Your task to perform on an android device: Search for "usb-c to usb-b" on amazon.com, select the first entry, and add it to the cart. Image 0: 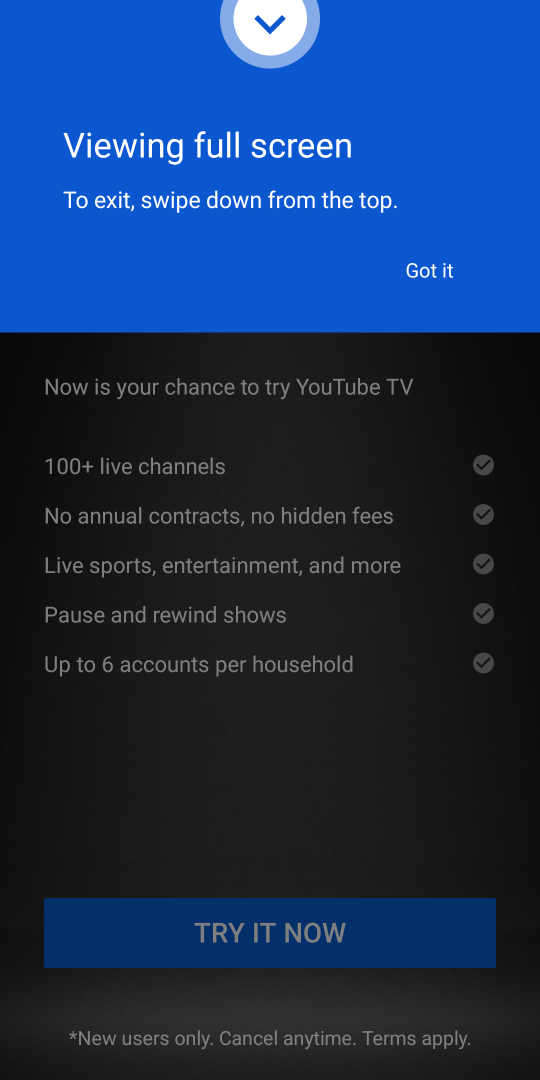
Step 0: click (442, 279)
Your task to perform on an android device: Search for "usb-c to usb-b" on amazon.com, select the first entry, and add it to the cart. Image 1: 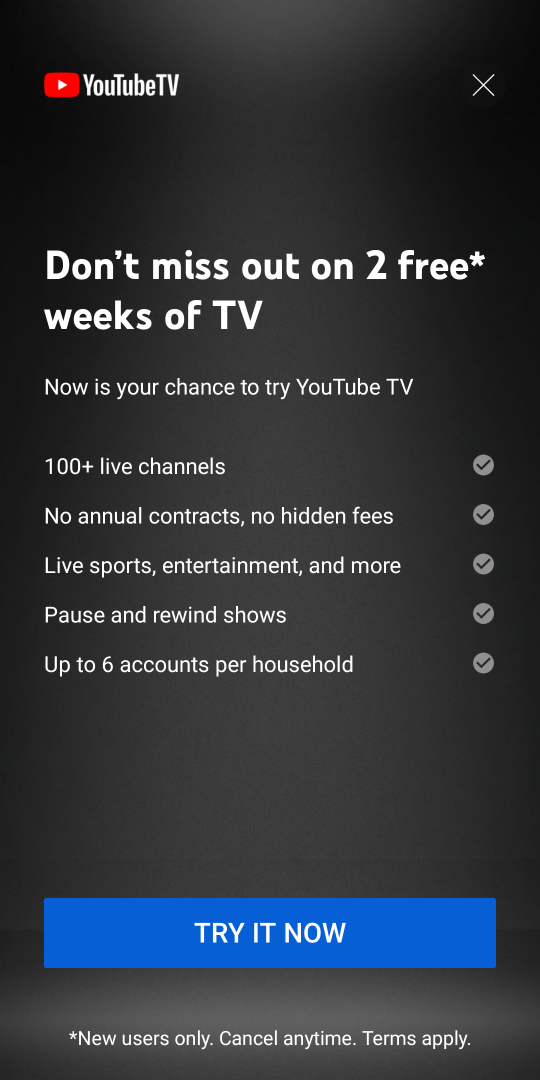
Step 1: click (476, 97)
Your task to perform on an android device: Search for "usb-c to usb-b" on amazon.com, select the first entry, and add it to the cart. Image 2: 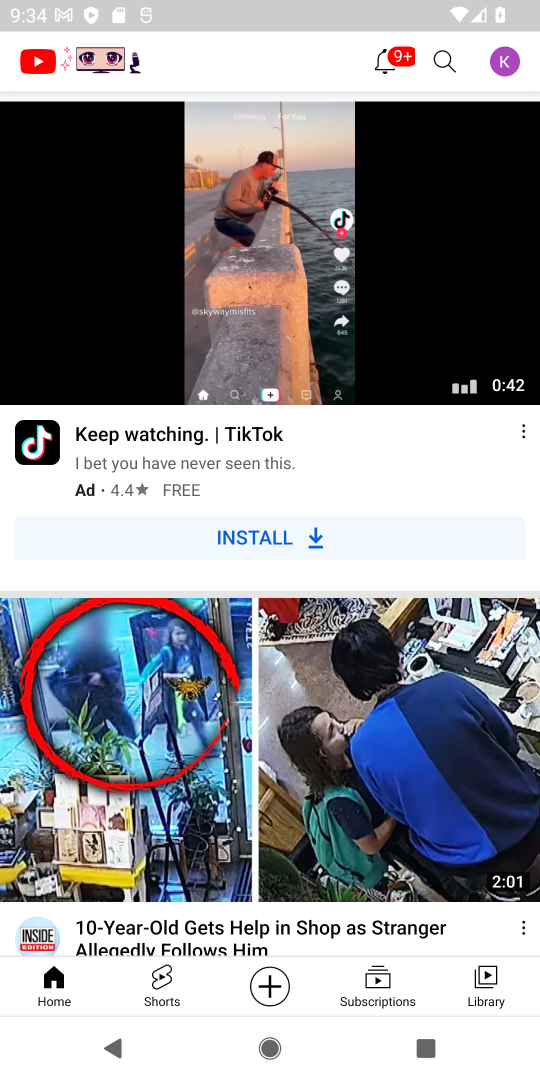
Step 2: press home button
Your task to perform on an android device: Search for "usb-c to usb-b" on amazon.com, select the first entry, and add it to the cart. Image 3: 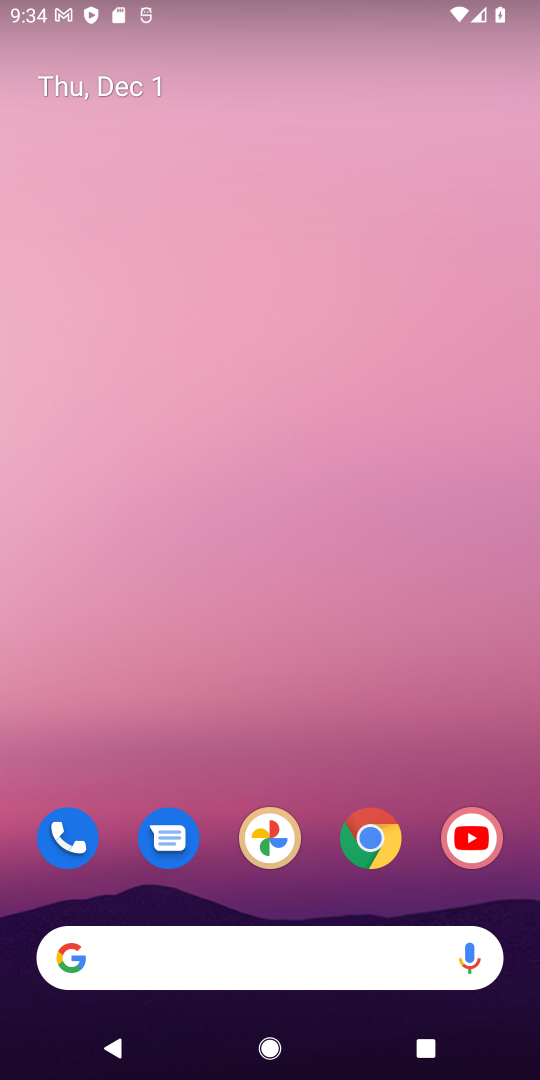
Step 3: drag from (308, 921) to (309, 386)
Your task to perform on an android device: Search for "usb-c to usb-b" on amazon.com, select the first entry, and add it to the cart. Image 4: 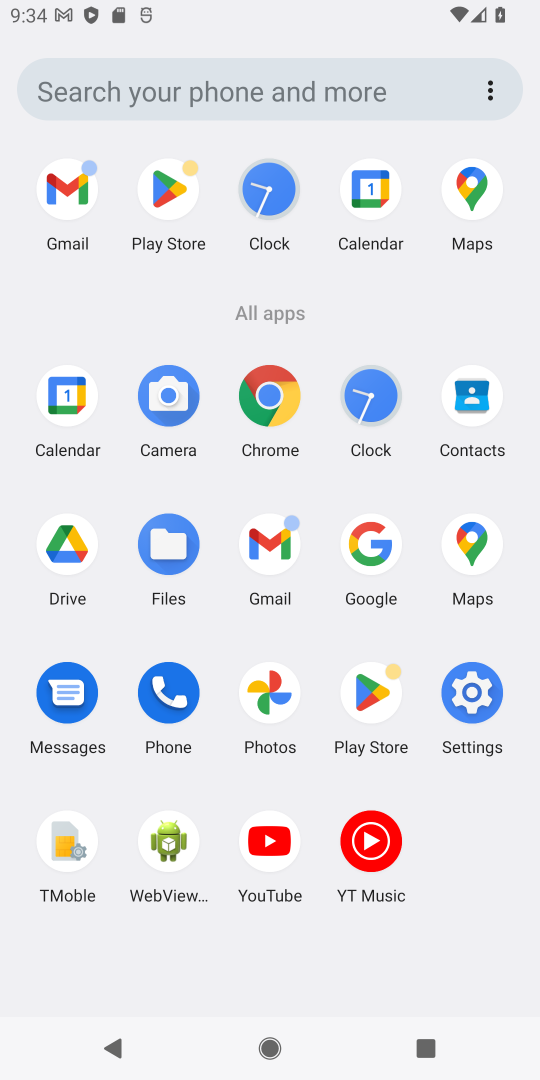
Step 4: click (373, 541)
Your task to perform on an android device: Search for "usb-c to usb-b" on amazon.com, select the first entry, and add it to the cart. Image 5: 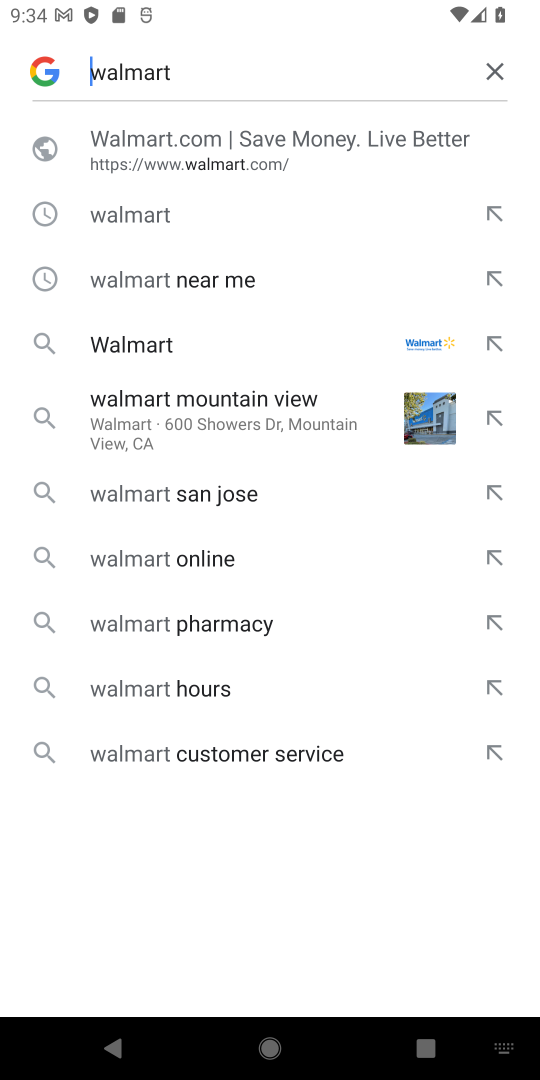
Step 5: click (490, 63)
Your task to perform on an android device: Search for "usb-c to usb-b" on amazon.com, select the first entry, and add it to the cart. Image 6: 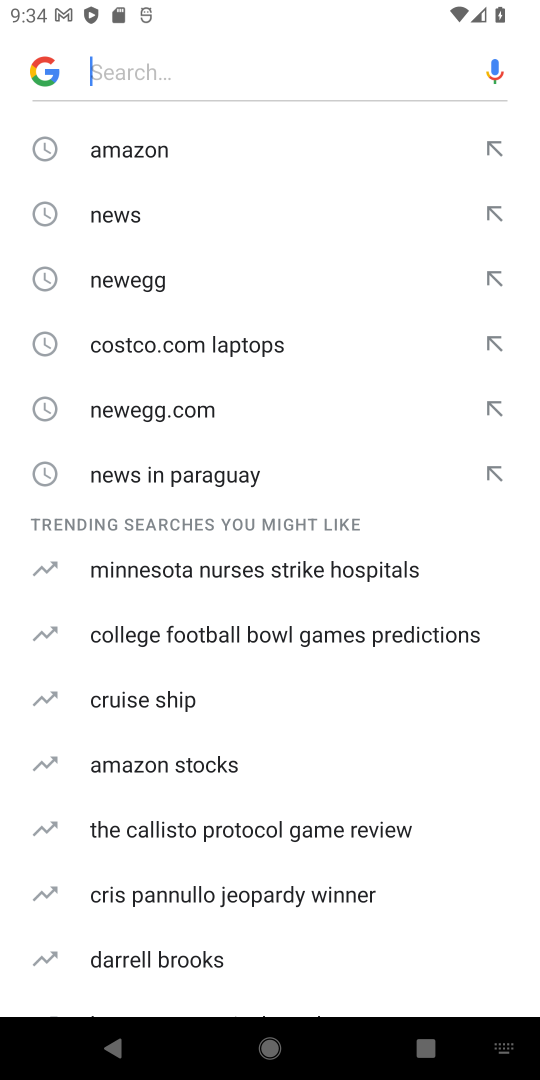
Step 6: click (128, 142)
Your task to perform on an android device: Search for "usb-c to usb-b" on amazon.com, select the first entry, and add it to the cart. Image 7: 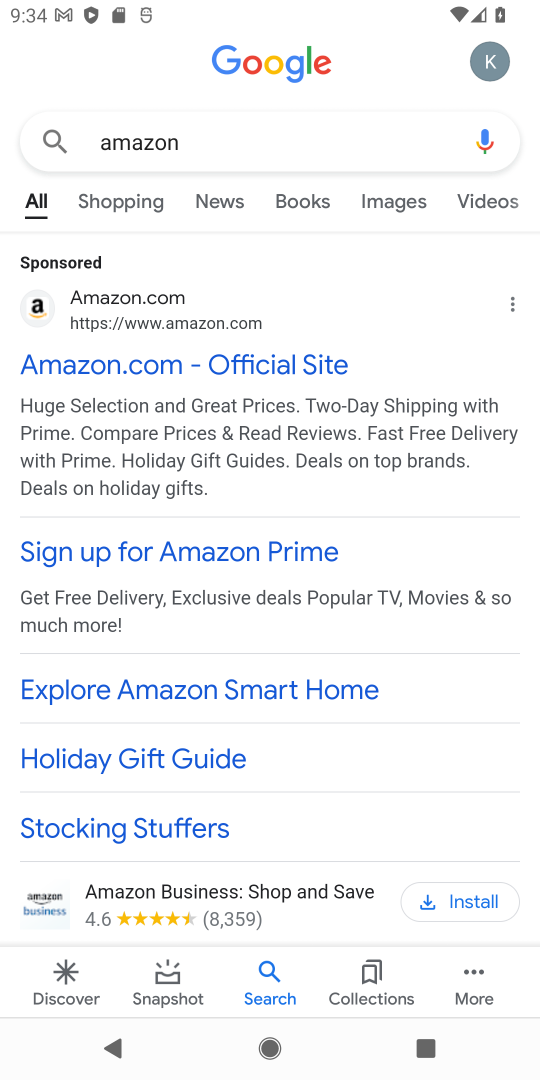
Step 7: click (75, 362)
Your task to perform on an android device: Search for "usb-c to usb-b" on amazon.com, select the first entry, and add it to the cart. Image 8: 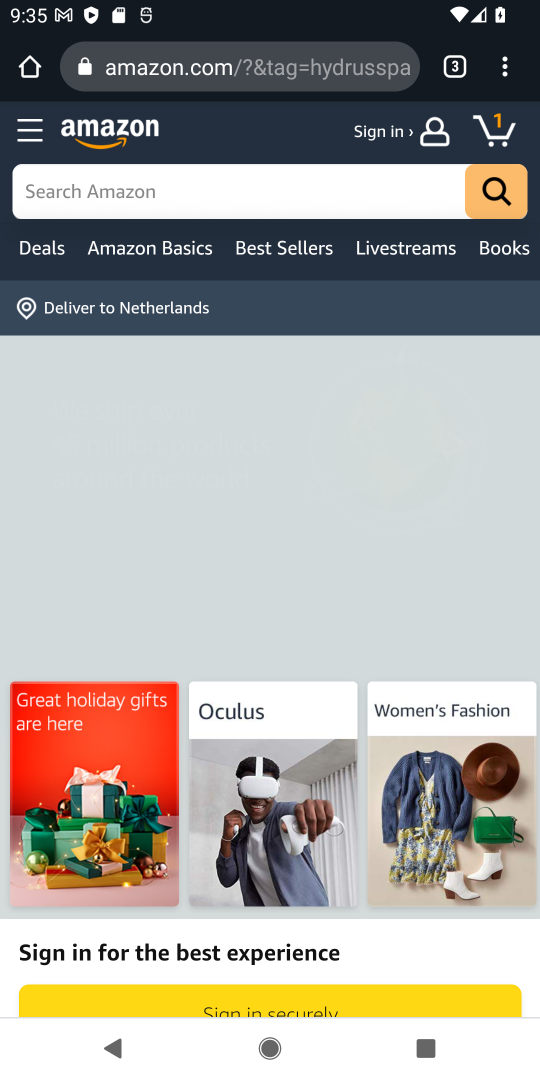
Step 8: click (144, 190)
Your task to perform on an android device: Search for "usb-c to usb-b" on amazon.com, select the first entry, and add it to the cart. Image 9: 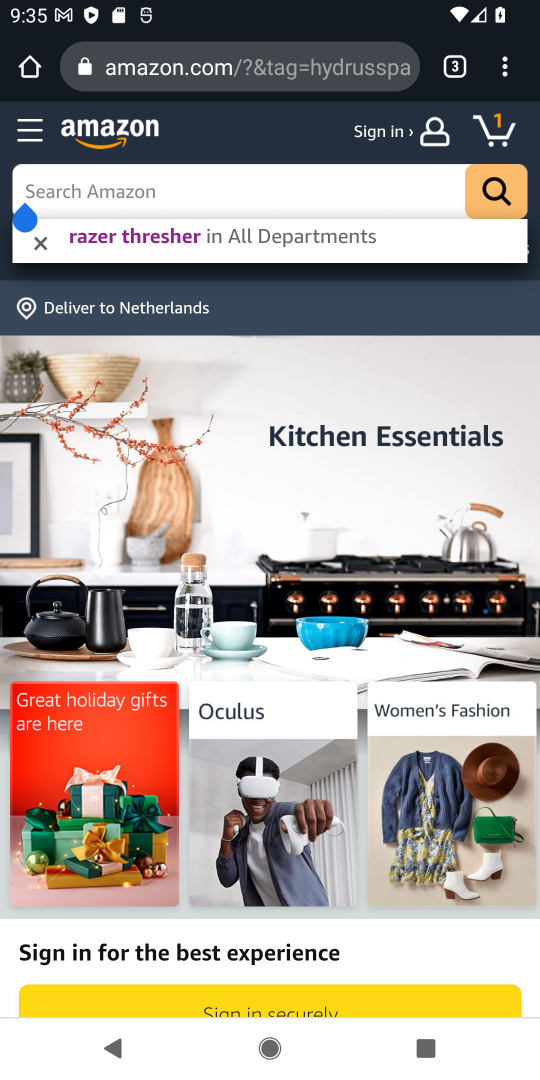
Step 9: type "usb-c to usb-b"
Your task to perform on an android device: Search for "usb-c to usb-b" on amazon.com, select the first entry, and add it to the cart. Image 10: 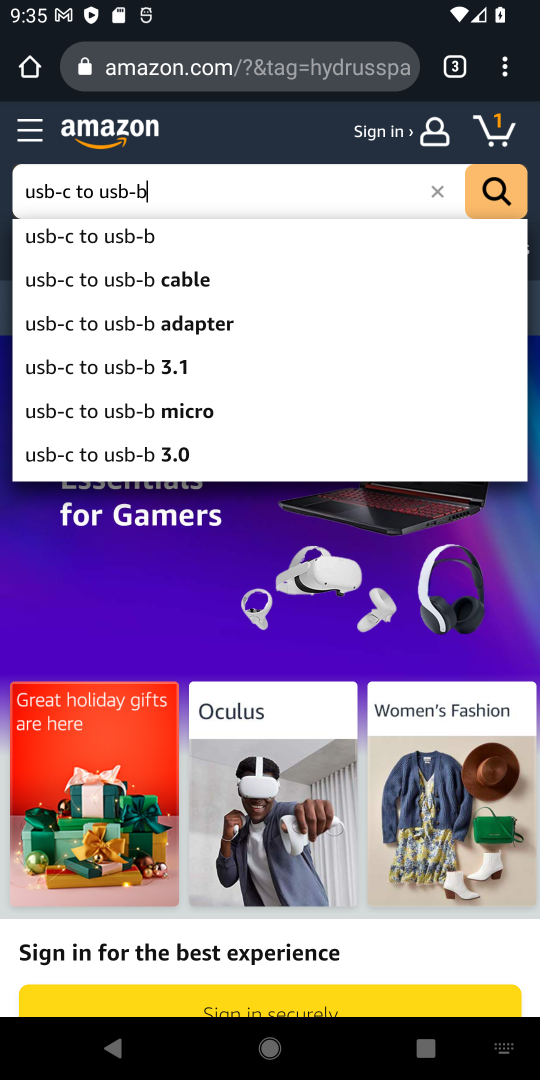
Step 10: click (126, 236)
Your task to perform on an android device: Search for "usb-c to usb-b" on amazon.com, select the first entry, and add it to the cart. Image 11: 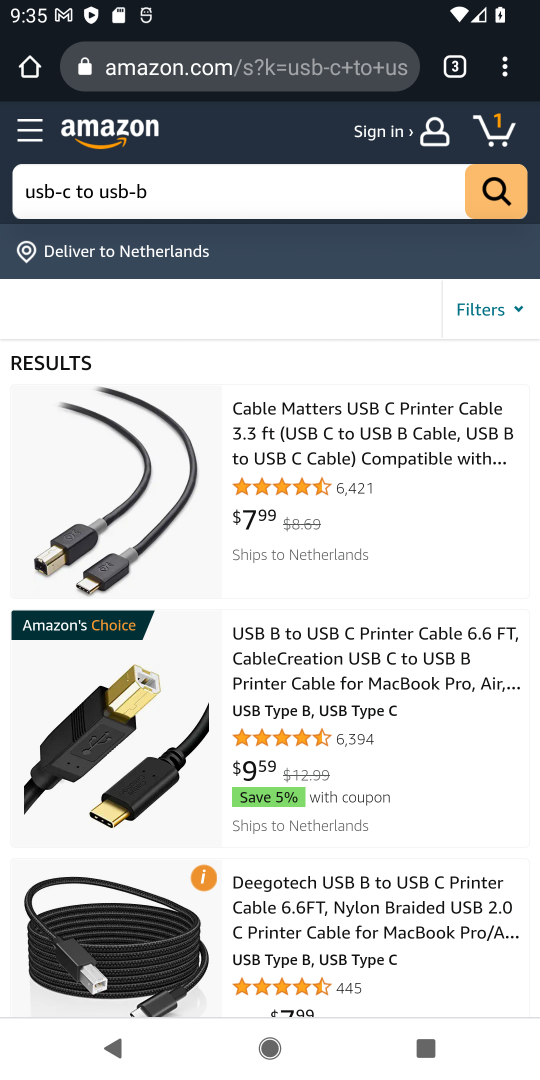
Step 11: click (281, 484)
Your task to perform on an android device: Search for "usb-c to usb-b" on amazon.com, select the first entry, and add it to the cart. Image 12: 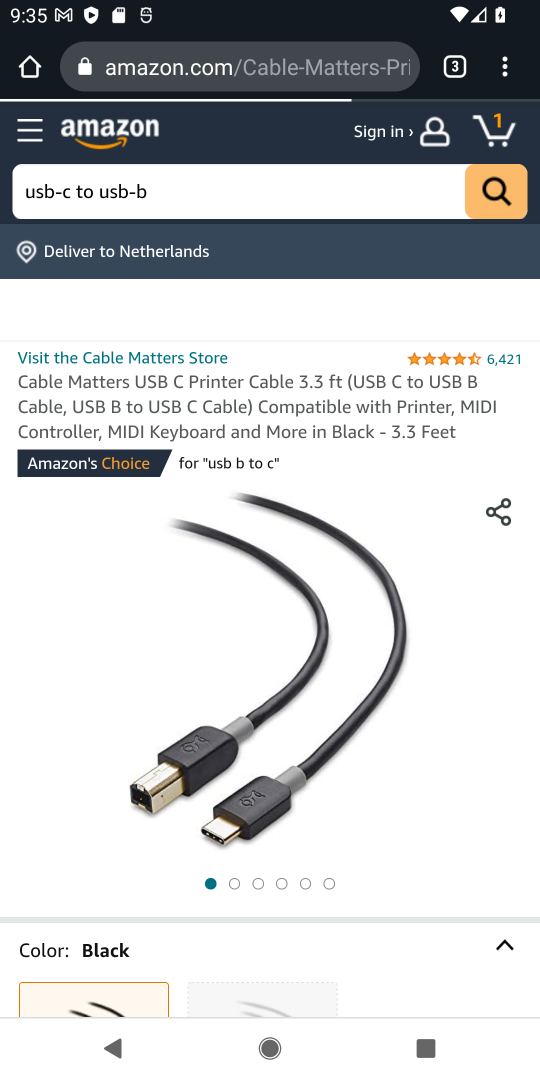
Step 12: drag from (349, 713) to (343, 519)
Your task to perform on an android device: Search for "usb-c to usb-b" on amazon.com, select the first entry, and add it to the cart. Image 13: 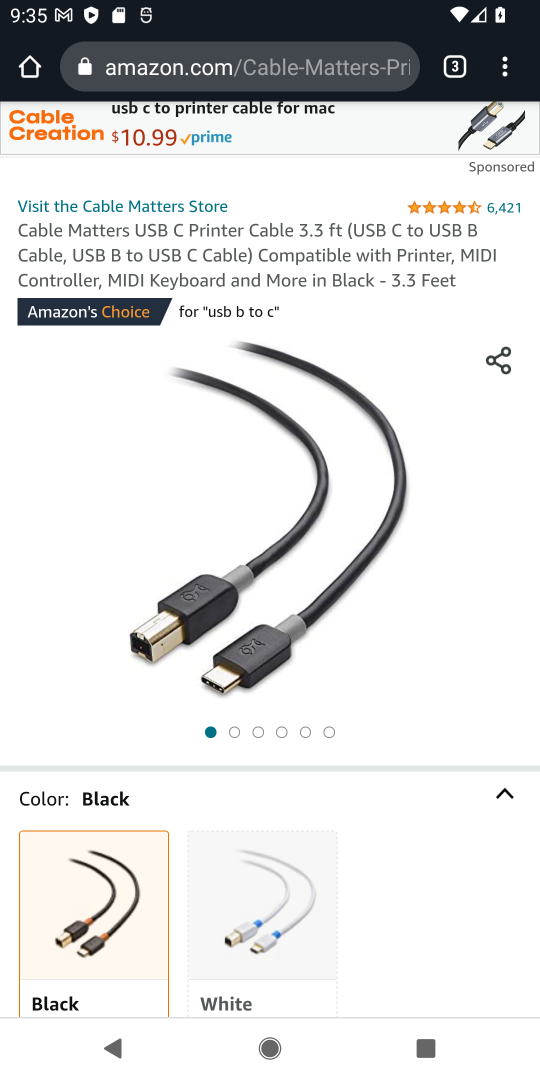
Step 13: drag from (400, 845) to (400, 478)
Your task to perform on an android device: Search for "usb-c to usb-b" on amazon.com, select the first entry, and add it to the cart. Image 14: 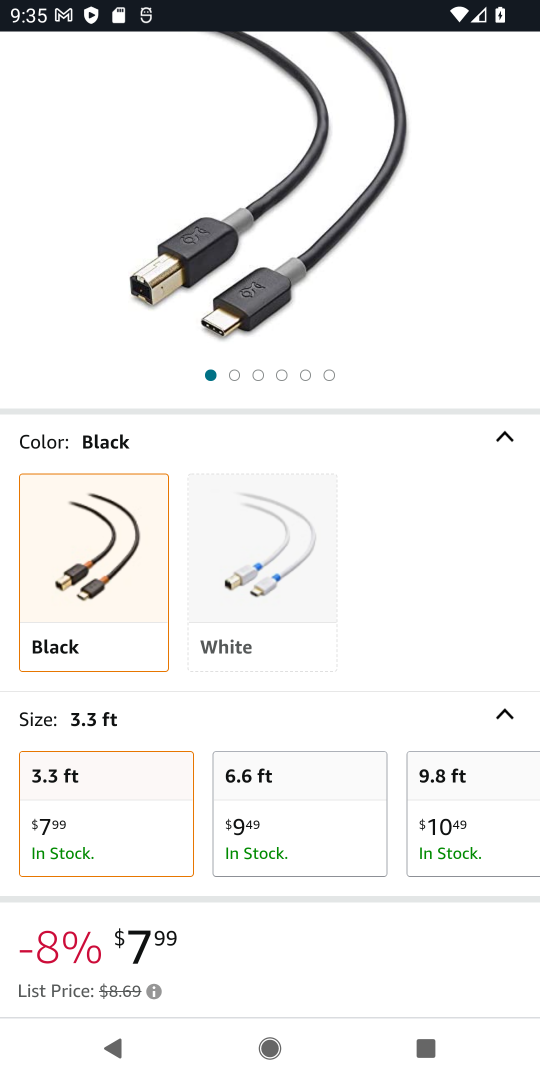
Step 14: drag from (441, 929) to (433, 484)
Your task to perform on an android device: Search for "usb-c to usb-b" on amazon.com, select the first entry, and add it to the cart. Image 15: 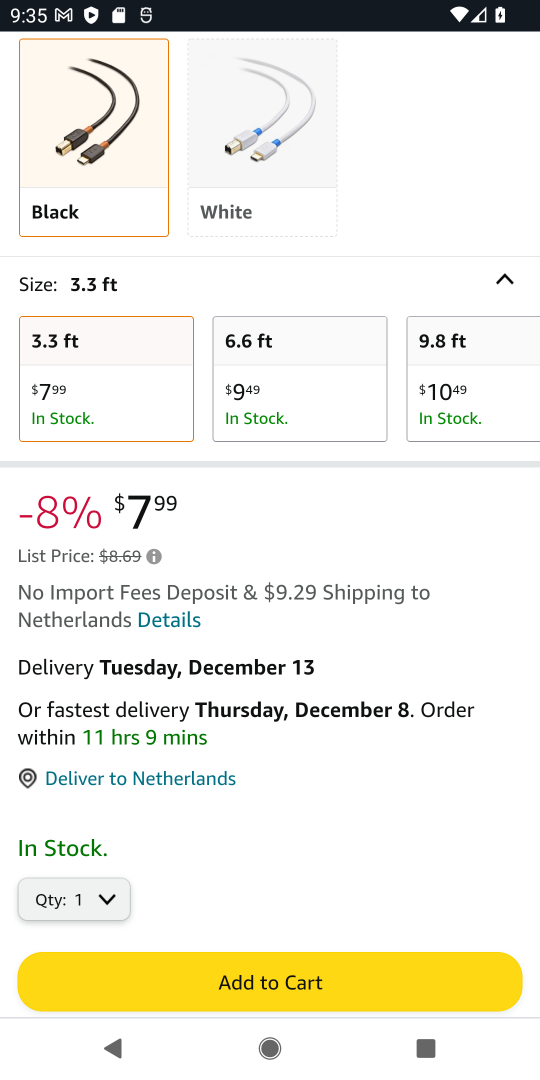
Step 15: click (289, 987)
Your task to perform on an android device: Search for "usb-c to usb-b" on amazon.com, select the first entry, and add it to the cart. Image 16: 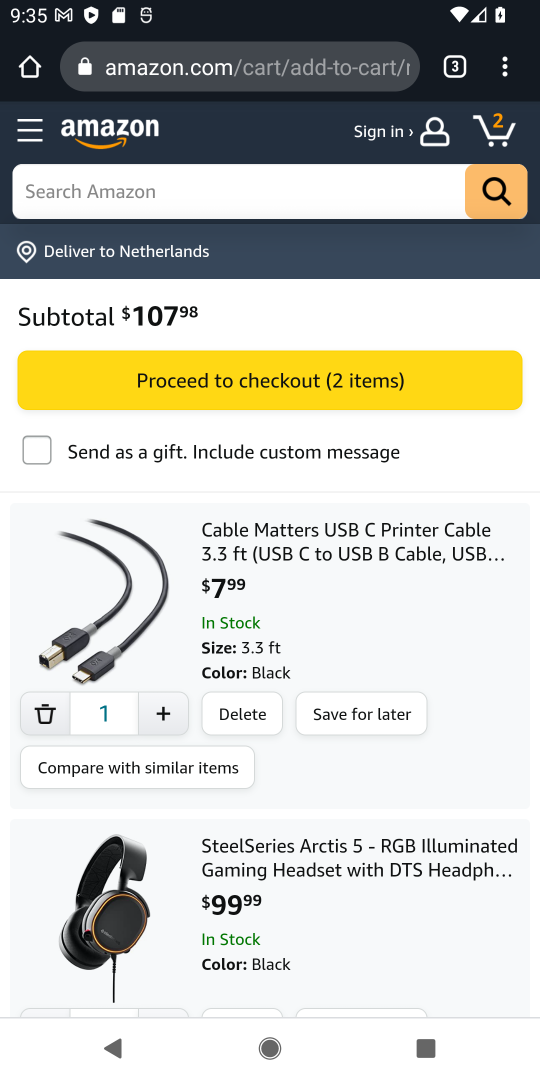
Step 16: task complete